Your task to perform on an android device: Show me the alarms in the clock app Image 0: 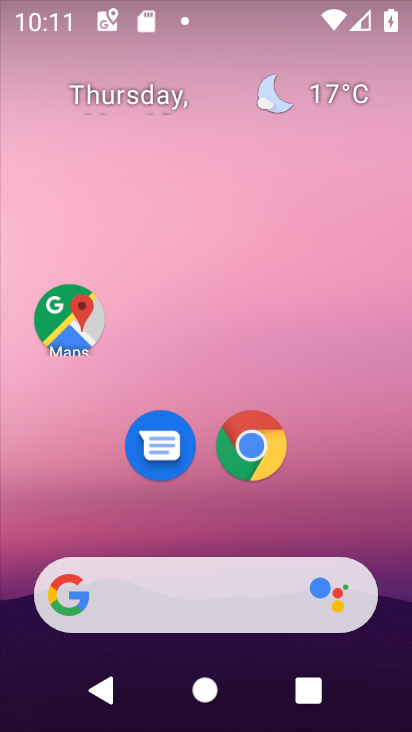
Step 0: drag from (258, 499) to (329, 243)
Your task to perform on an android device: Show me the alarms in the clock app Image 1: 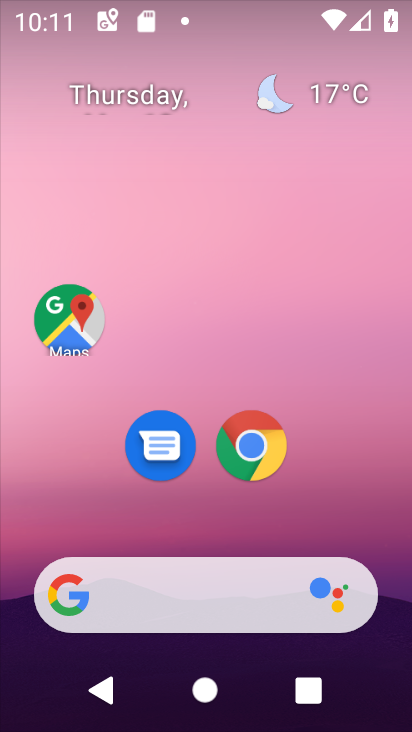
Step 1: drag from (305, 522) to (315, 136)
Your task to perform on an android device: Show me the alarms in the clock app Image 2: 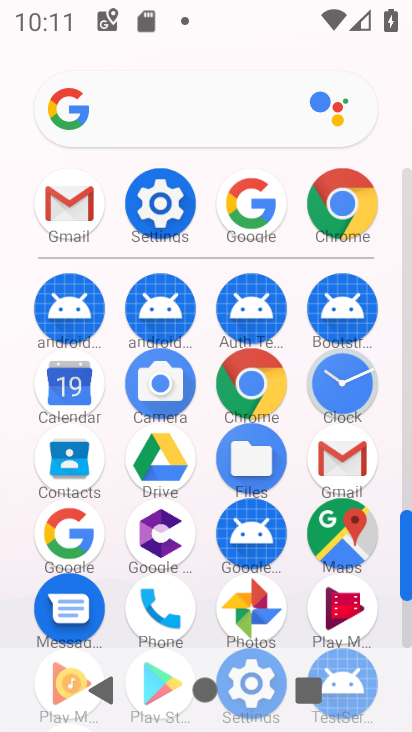
Step 2: click (339, 398)
Your task to perform on an android device: Show me the alarms in the clock app Image 3: 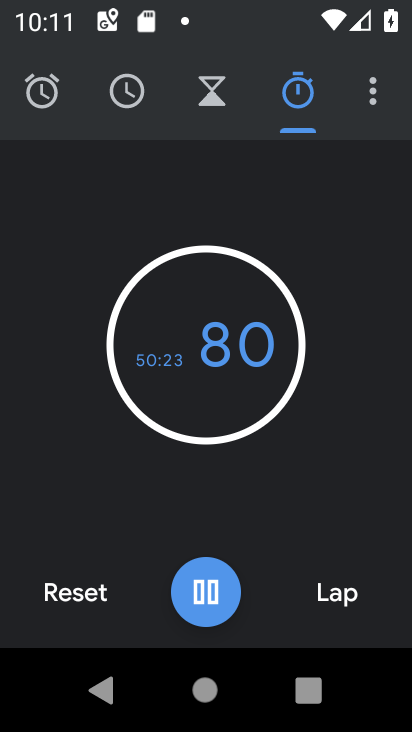
Step 3: click (56, 104)
Your task to perform on an android device: Show me the alarms in the clock app Image 4: 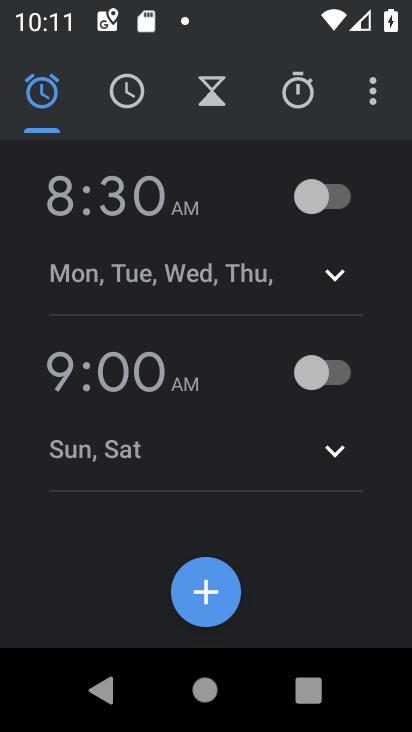
Step 4: task complete